Your task to perform on an android device: Open the map Image 0: 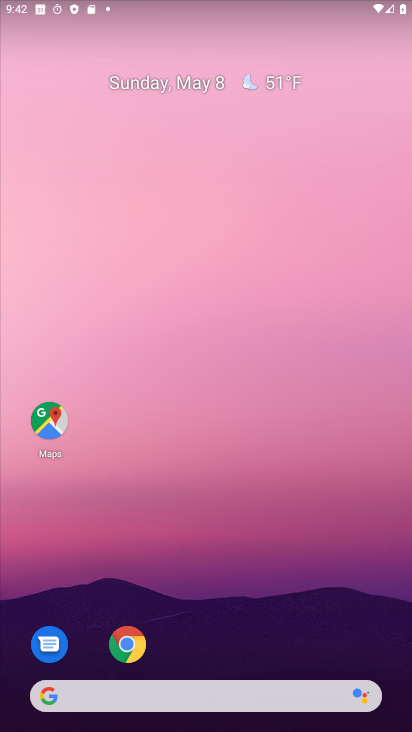
Step 0: drag from (260, 144) to (208, 219)
Your task to perform on an android device: Open the map Image 1: 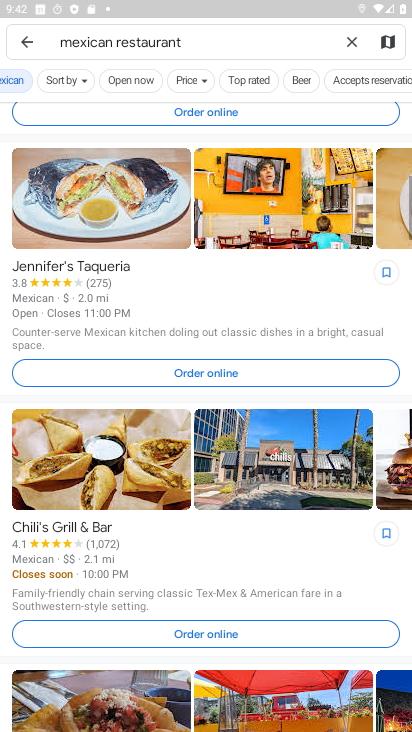
Step 1: task complete